Your task to perform on an android device: change your default location settings in chrome Image 0: 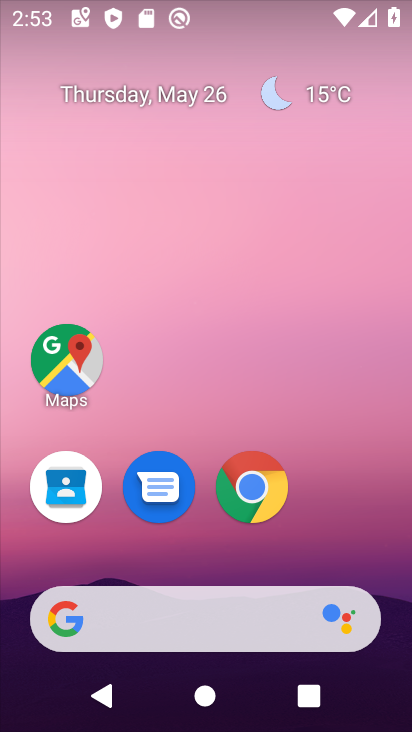
Step 0: click (235, 504)
Your task to perform on an android device: change your default location settings in chrome Image 1: 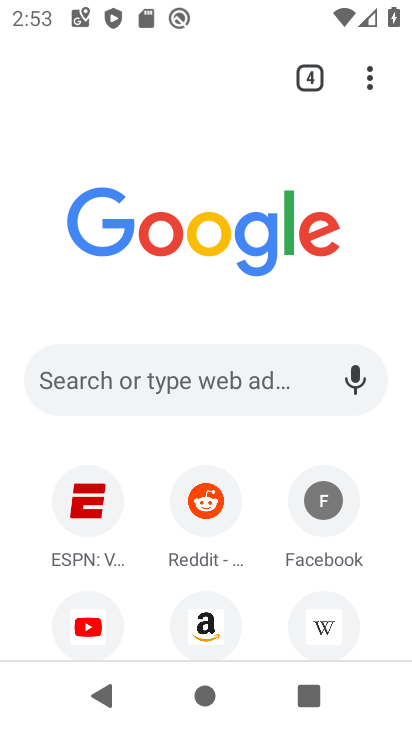
Step 1: drag from (370, 76) to (110, 559)
Your task to perform on an android device: change your default location settings in chrome Image 2: 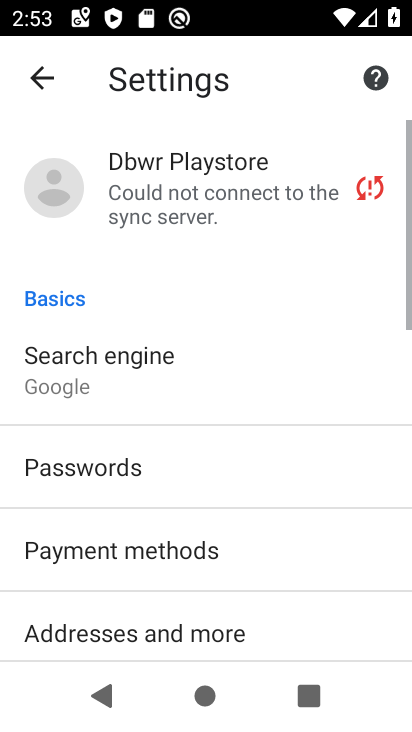
Step 2: drag from (215, 369) to (262, 185)
Your task to perform on an android device: change your default location settings in chrome Image 3: 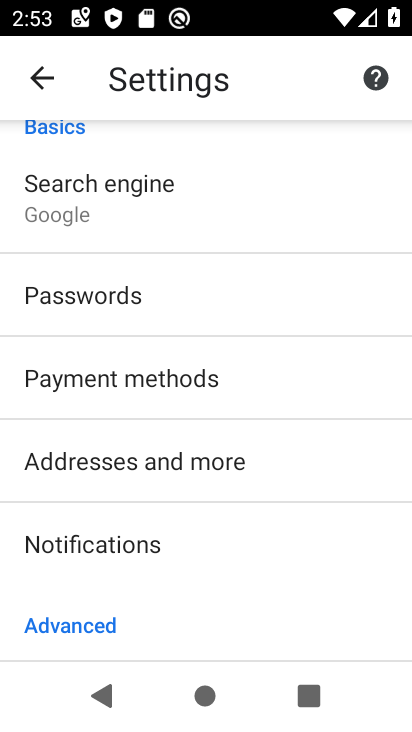
Step 3: drag from (256, 565) to (285, 194)
Your task to perform on an android device: change your default location settings in chrome Image 4: 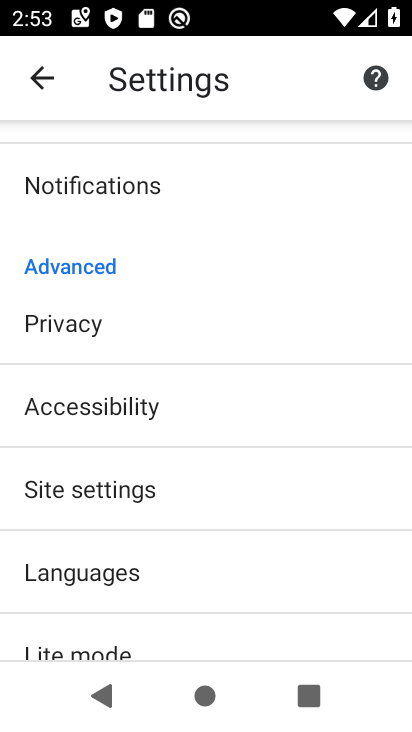
Step 4: click (180, 492)
Your task to perform on an android device: change your default location settings in chrome Image 5: 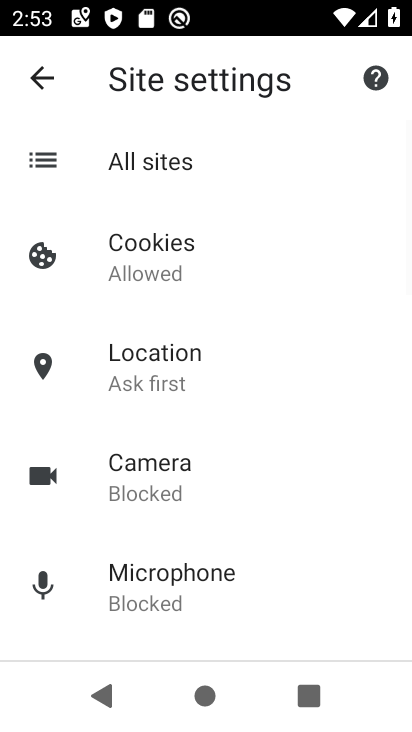
Step 5: drag from (234, 568) to (276, 314)
Your task to perform on an android device: change your default location settings in chrome Image 6: 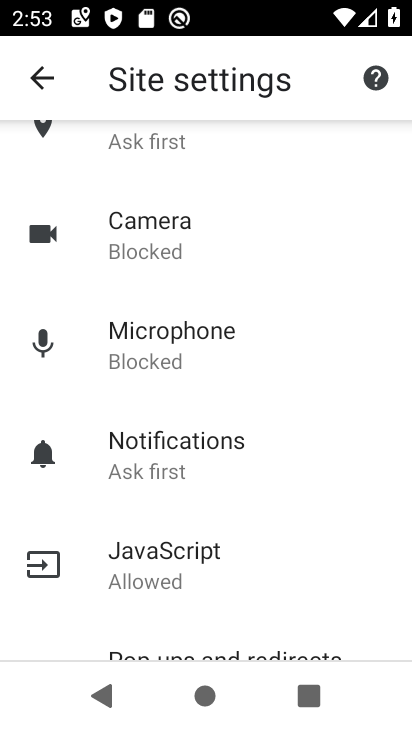
Step 6: drag from (173, 173) to (210, 394)
Your task to perform on an android device: change your default location settings in chrome Image 7: 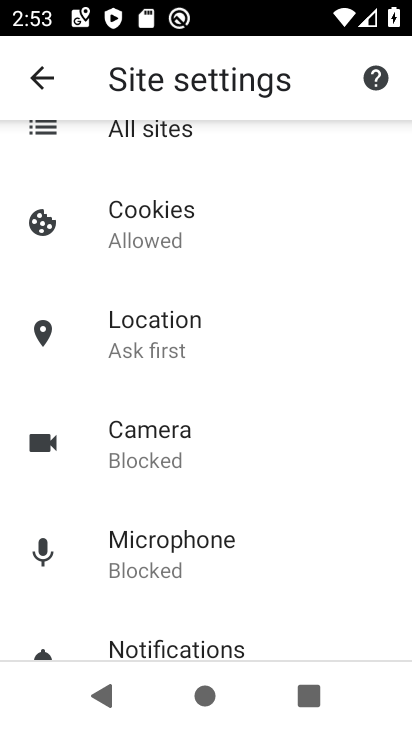
Step 7: click (189, 295)
Your task to perform on an android device: change your default location settings in chrome Image 8: 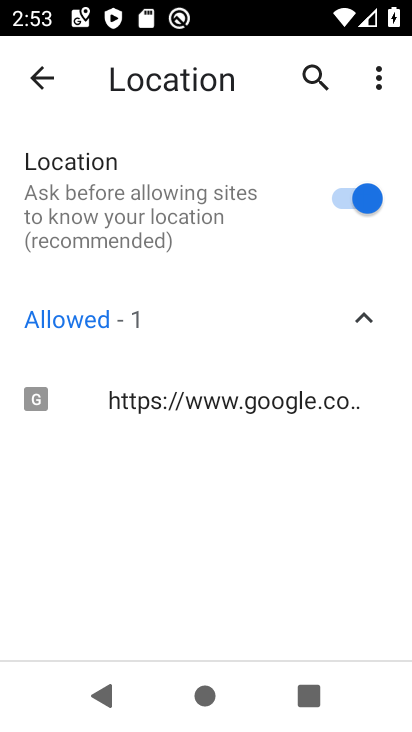
Step 8: click (340, 198)
Your task to perform on an android device: change your default location settings in chrome Image 9: 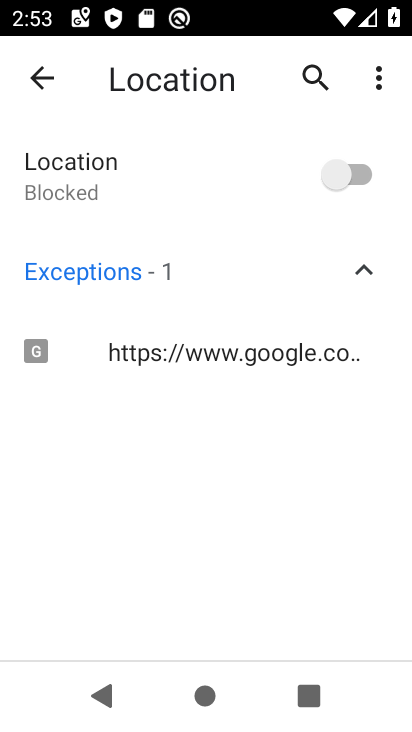
Step 9: task complete